Your task to perform on an android device: Go to network settings Image 0: 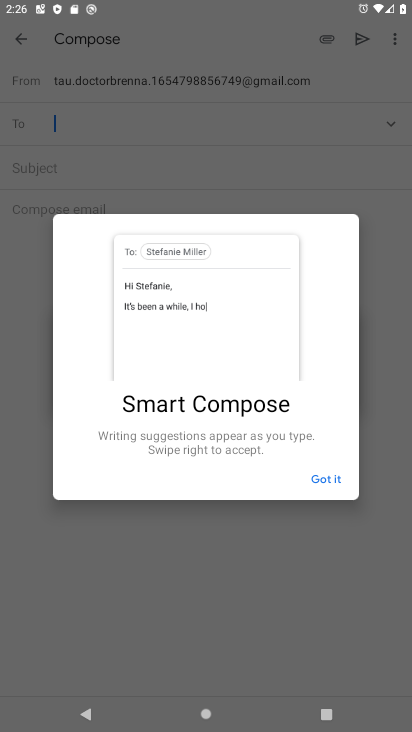
Step 0: press home button
Your task to perform on an android device: Go to network settings Image 1: 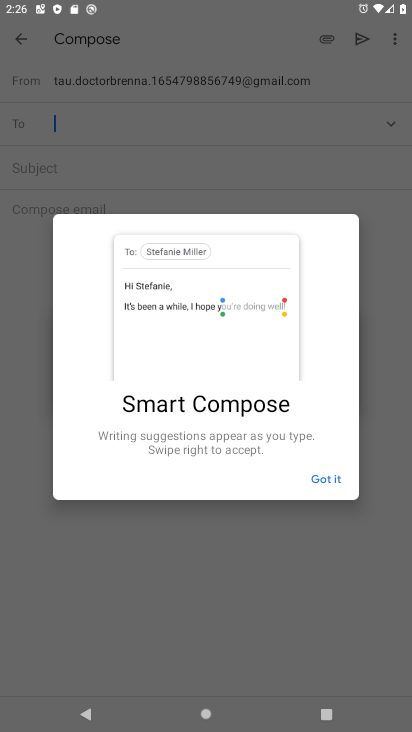
Step 1: press home button
Your task to perform on an android device: Go to network settings Image 2: 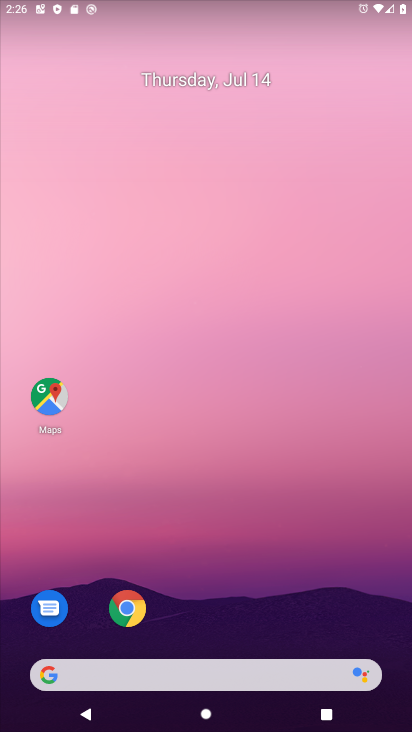
Step 2: drag from (250, 668) to (271, 118)
Your task to perform on an android device: Go to network settings Image 3: 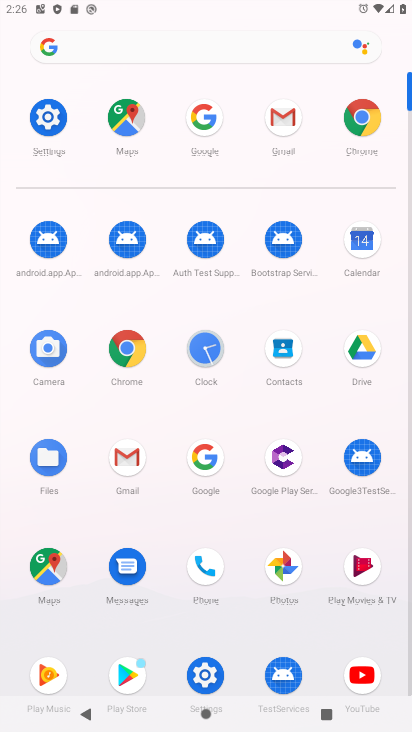
Step 3: click (37, 119)
Your task to perform on an android device: Go to network settings Image 4: 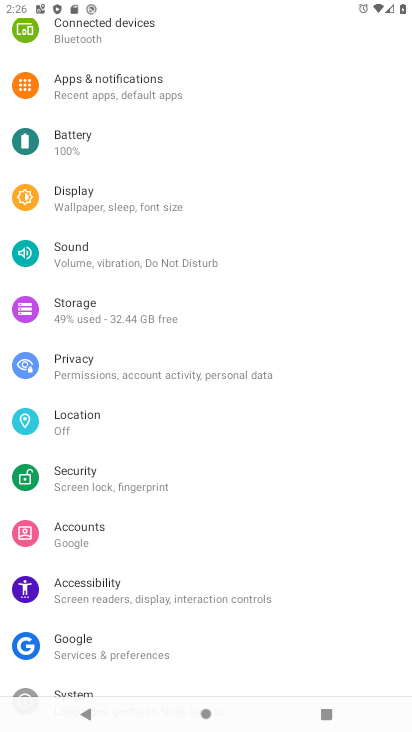
Step 4: drag from (104, 112) to (118, 566)
Your task to perform on an android device: Go to network settings Image 5: 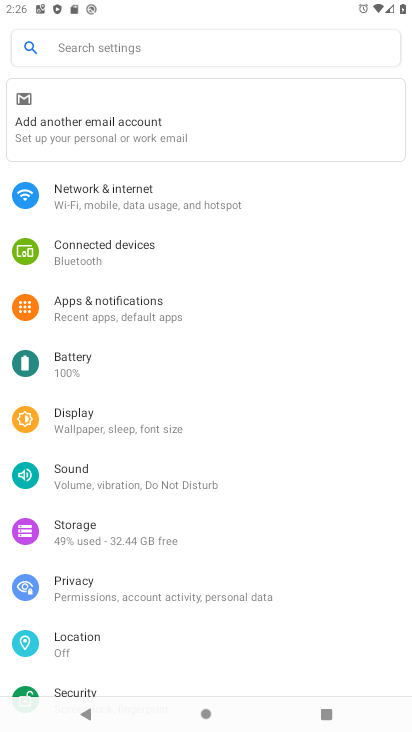
Step 5: click (103, 200)
Your task to perform on an android device: Go to network settings Image 6: 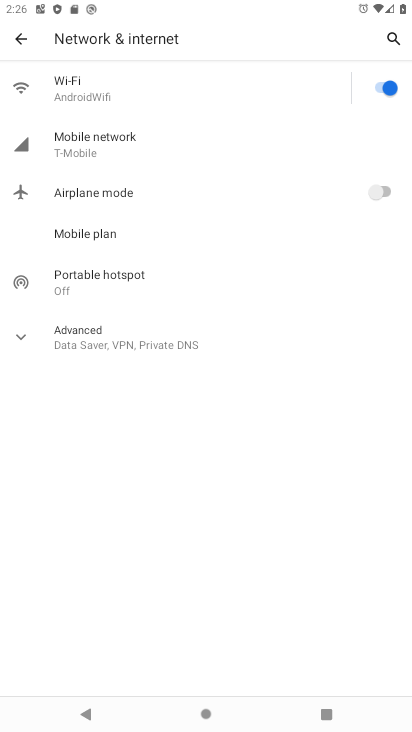
Step 6: click (91, 146)
Your task to perform on an android device: Go to network settings Image 7: 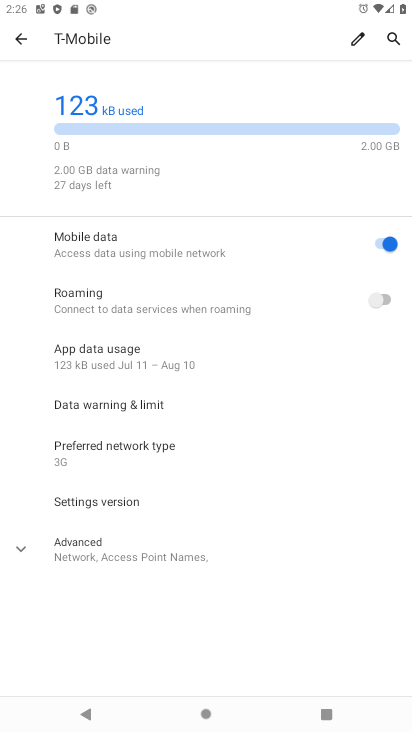
Step 7: task complete